Your task to perform on an android device: Check the news Image 0: 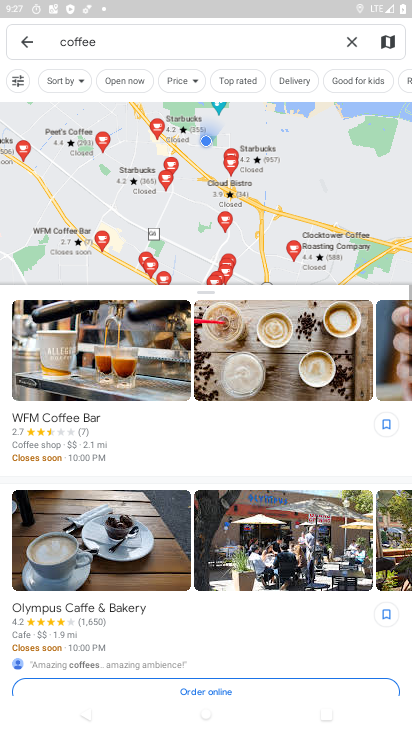
Step 0: press home button
Your task to perform on an android device: Check the news Image 1: 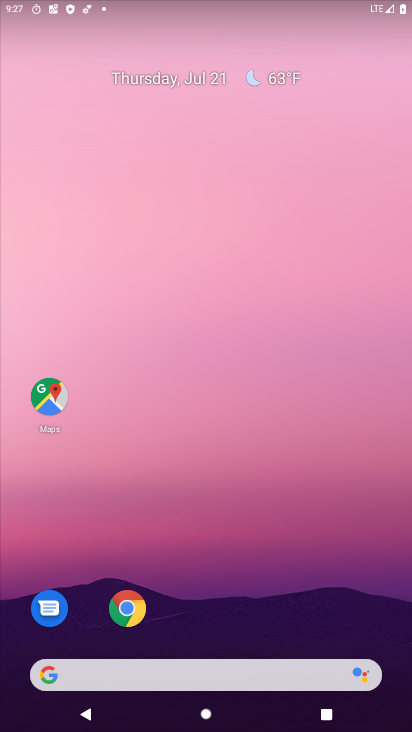
Step 1: drag from (220, 680) to (230, 118)
Your task to perform on an android device: Check the news Image 2: 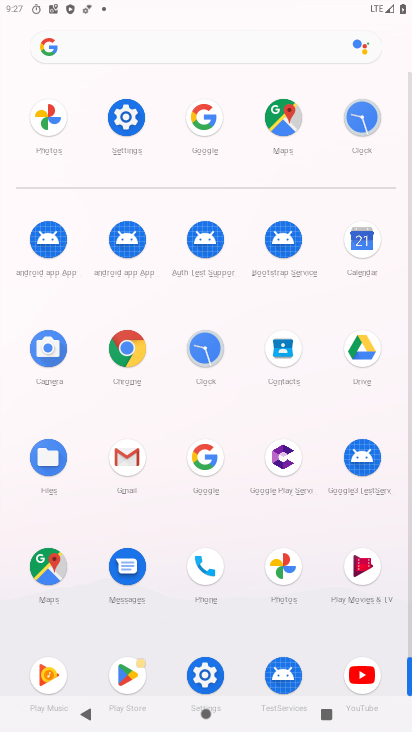
Step 2: click (198, 475)
Your task to perform on an android device: Check the news Image 3: 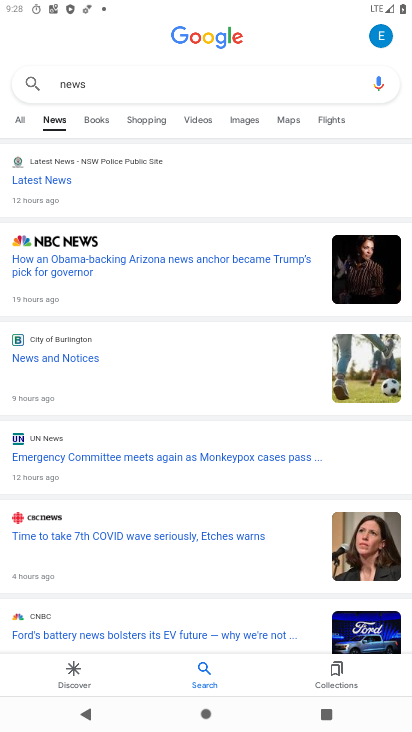
Step 3: task complete